Your task to perform on an android device: turn on wifi Image 0: 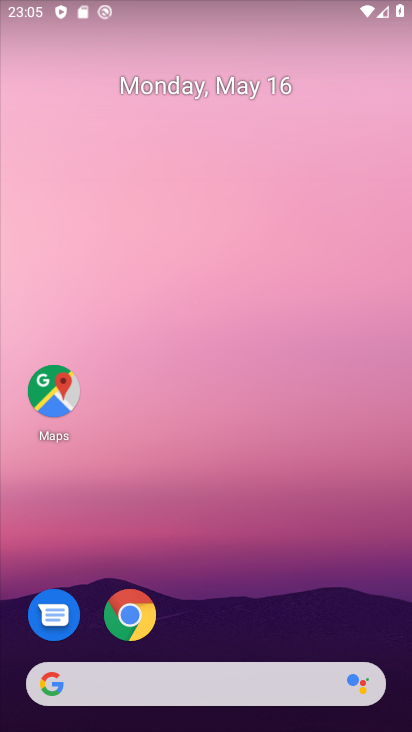
Step 0: drag from (225, 660) to (154, 52)
Your task to perform on an android device: turn on wifi Image 1: 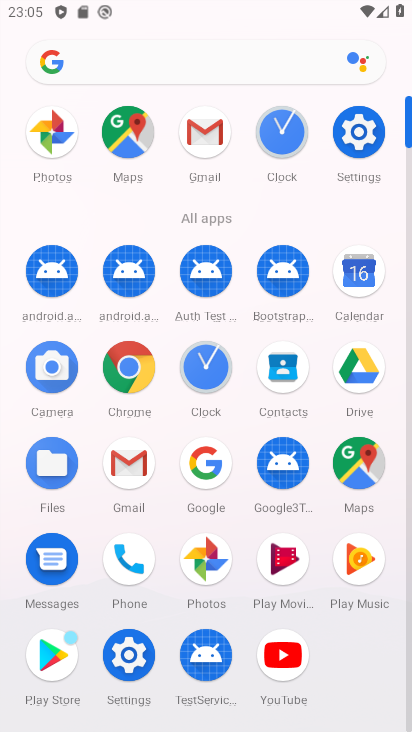
Step 1: click (348, 127)
Your task to perform on an android device: turn on wifi Image 2: 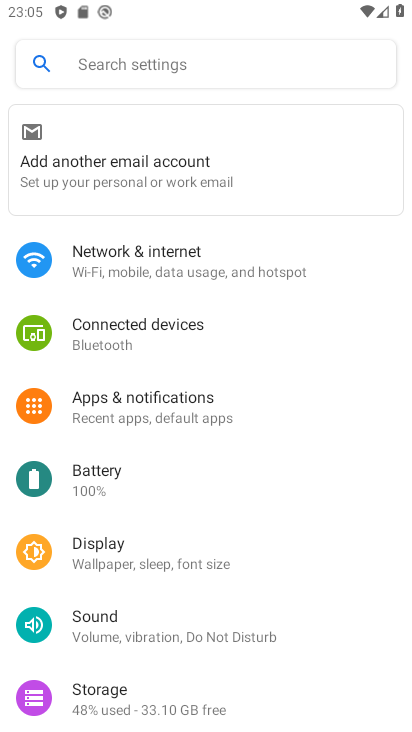
Step 2: click (152, 270)
Your task to perform on an android device: turn on wifi Image 3: 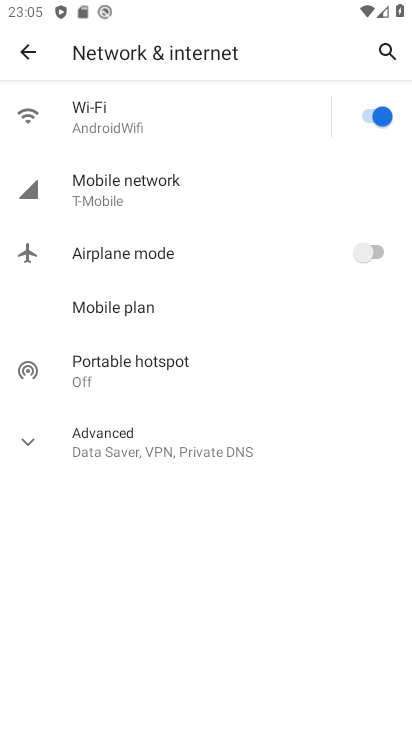
Step 3: task complete